Your task to perform on an android device: turn on the 12-hour format for clock Image 0: 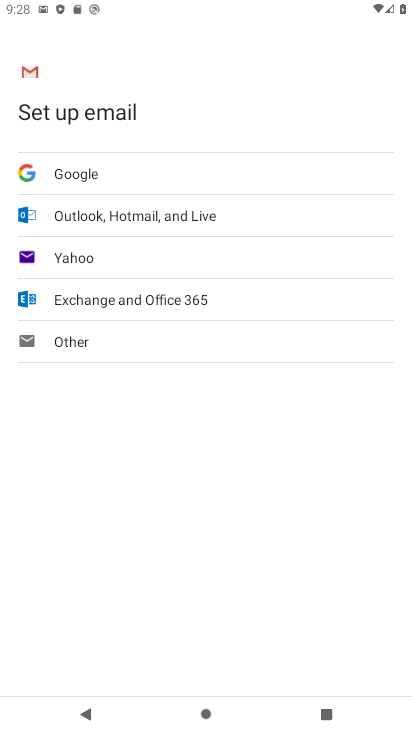
Step 0: click (127, 598)
Your task to perform on an android device: turn on the 12-hour format for clock Image 1: 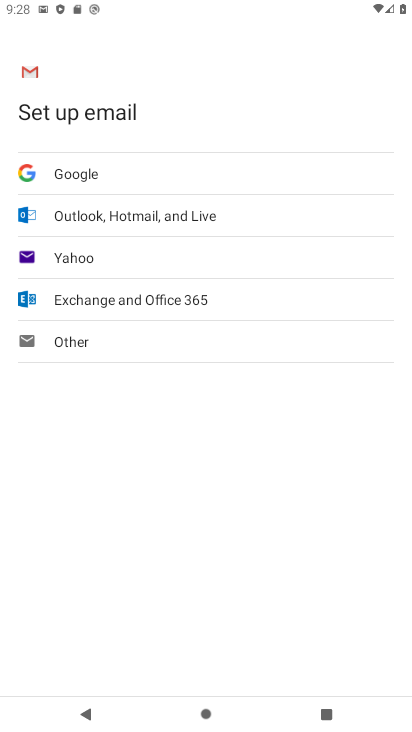
Step 1: press home button
Your task to perform on an android device: turn on the 12-hour format for clock Image 2: 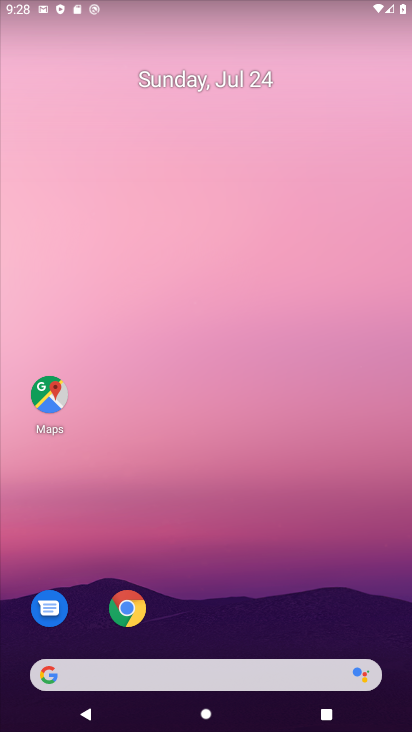
Step 2: drag from (212, 635) to (196, 67)
Your task to perform on an android device: turn on the 12-hour format for clock Image 3: 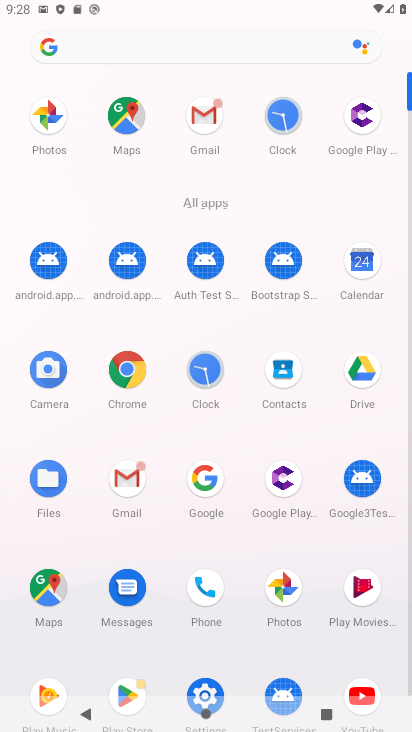
Step 3: click (203, 363)
Your task to perform on an android device: turn on the 12-hour format for clock Image 4: 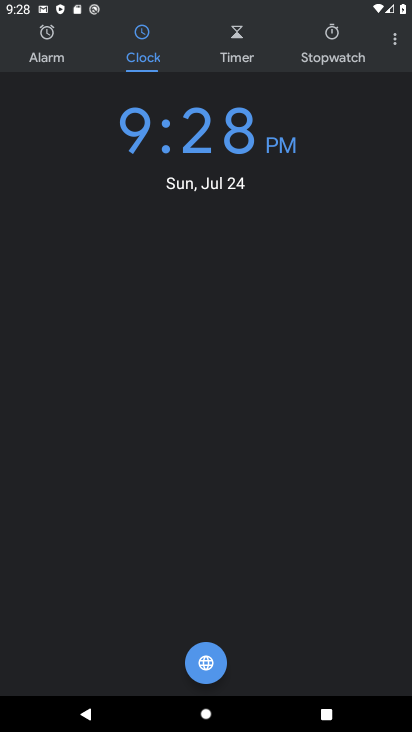
Step 4: click (393, 40)
Your task to perform on an android device: turn on the 12-hour format for clock Image 5: 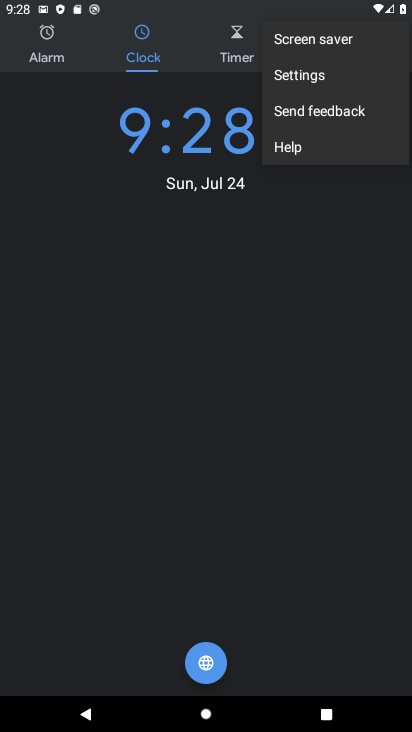
Step 5: click (328, 75)
Your task to perform on an android device: turn on the 12-hour format for clock Image 6: 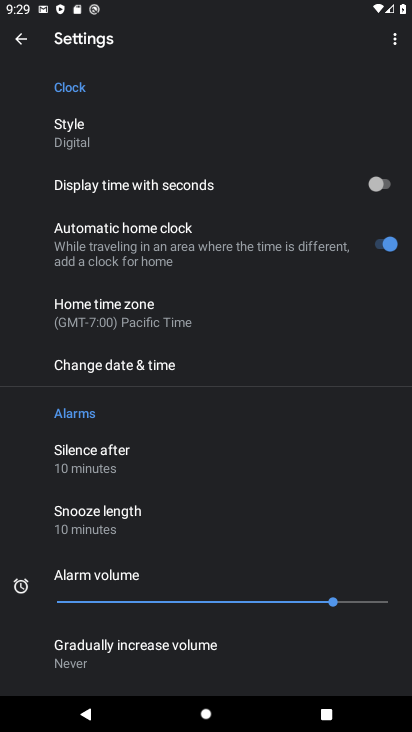
Step 6: click (185, 367)
Your task to perform on an android device: turn on the 12-hour format for clock Image 7: 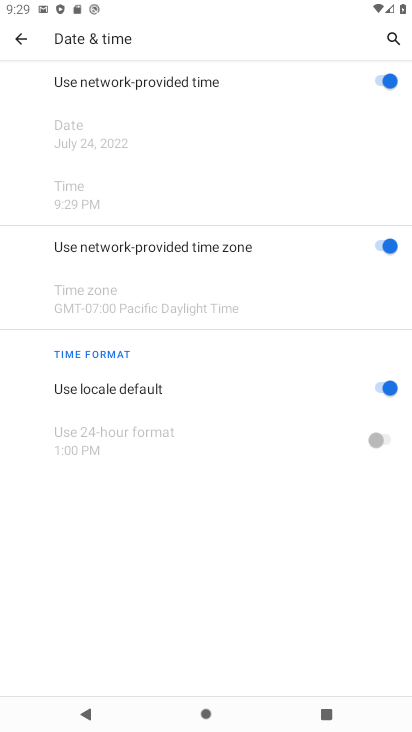
Step 7: task complete